Your task to perform on an android device: change keyboard looks Image 0: 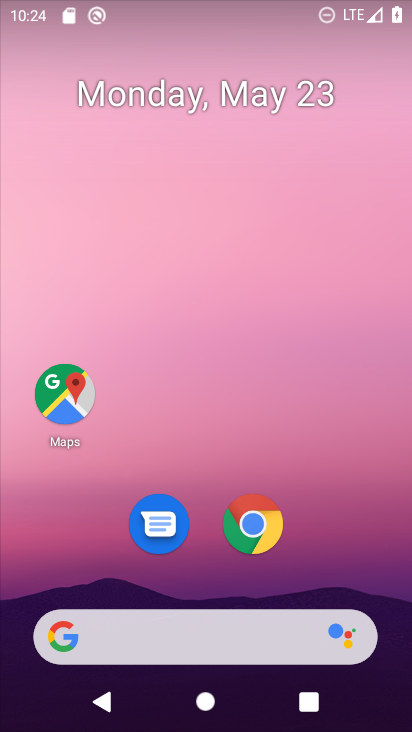
Step 0: drag from (180, 418) to (219, 32)
Your task to perform on an android device: change keyboard looks Image 1: 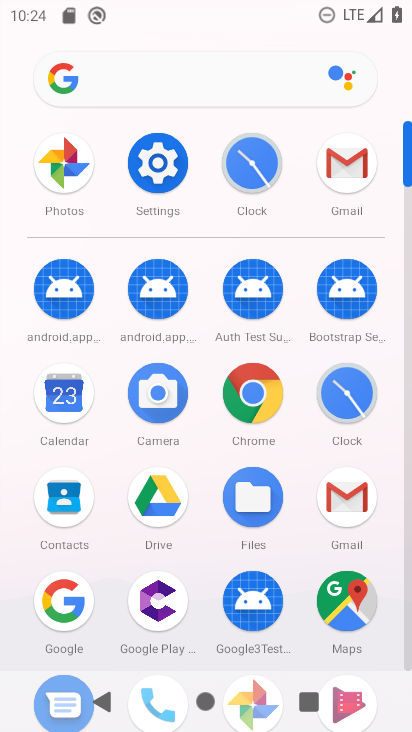
Step 1: click (165, 165)
Your task to perform on an android device: change keyboard looks Image 2: 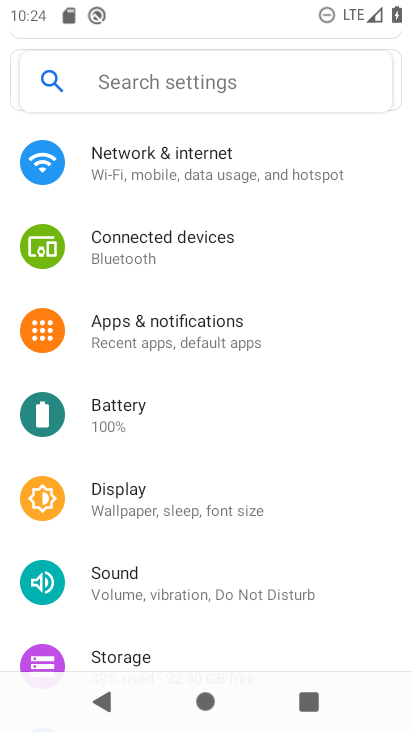
Step 2: drag from (209, 607) to (254, 89)
Your task to perform on an android device: change keyboard looks Image 3: 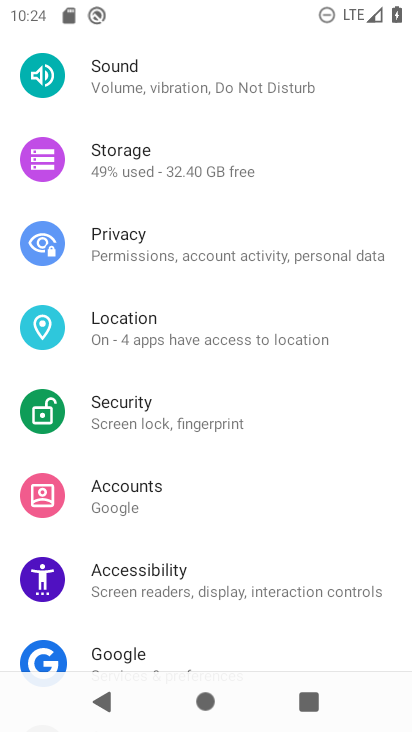
Step 3: drag from (212, 504) to (254, 120)
Your task to perform on an android device: change keyboard looks Image 4: 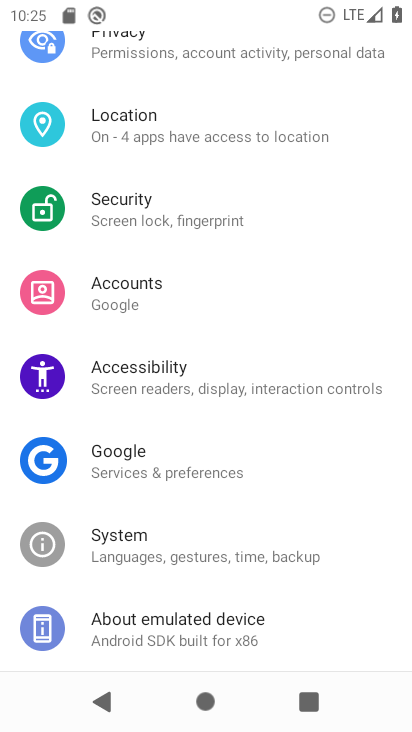
Step 4: click (176, 536)
Your task to perform on an android device: change keyboard looks Image 5: 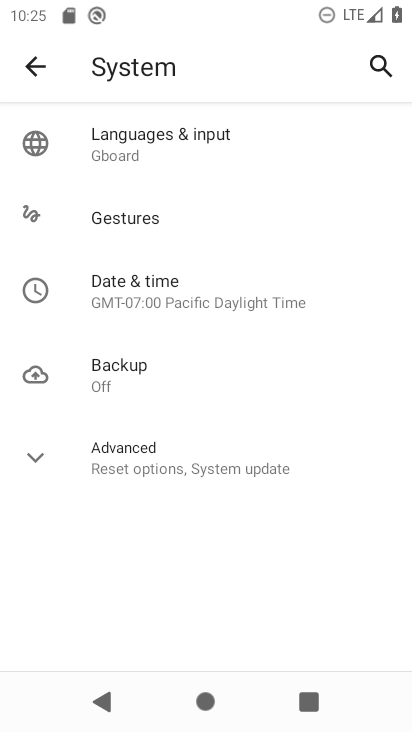
Step 5: click (181, 150)
Your task to perform on an android device: change keyboard looks Image 6: 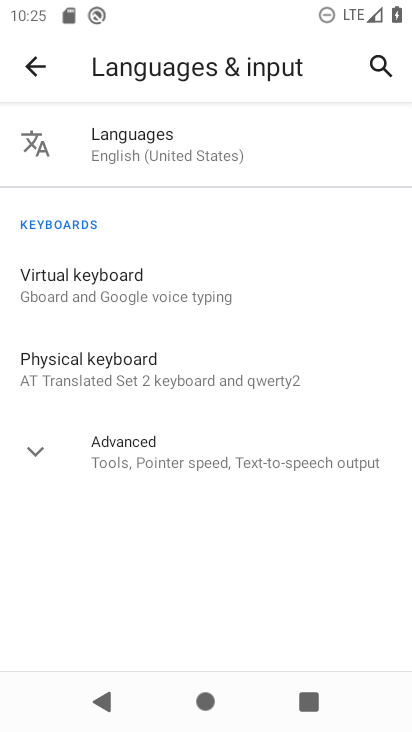
Step 6: click (161, 279)
Your task to perform on an android device: change keyboard looks Image 7: 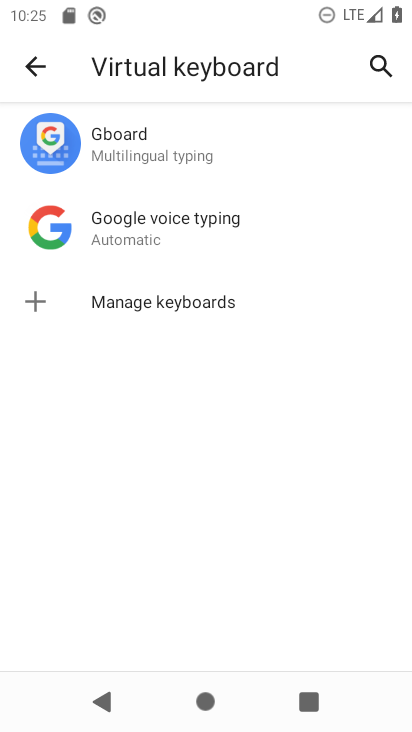
Step 7: click (163, 156)
Your task to perform on an android device: change keyboard looks Image 8: 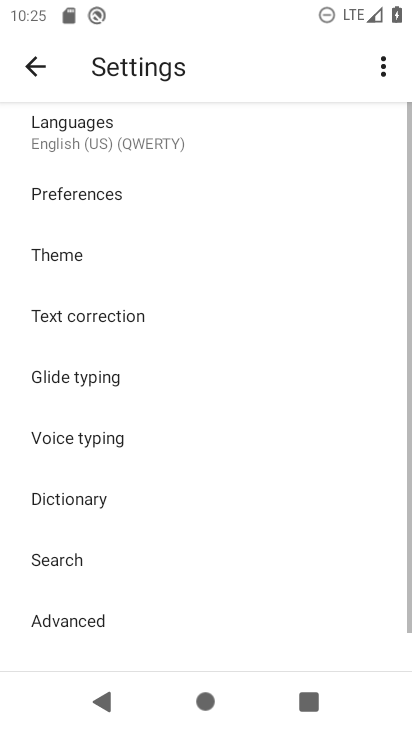
Step 8: click (122, 258)
Your task to perform on an android device: change keyboard looks Image 9: 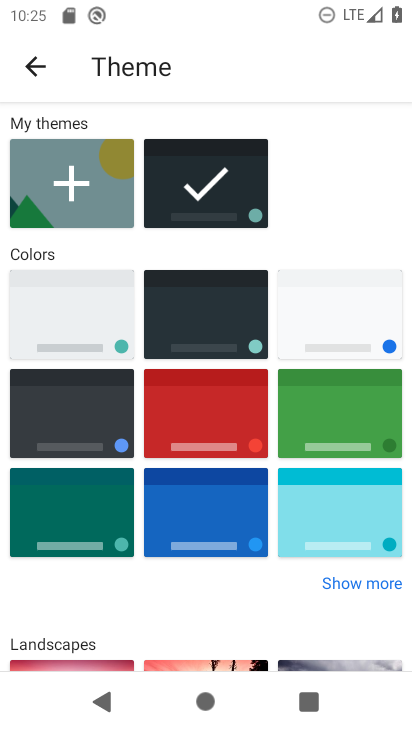
Step 9: click (102, 303)
Your task to perform on an android device: change keyboard looks Image 10: 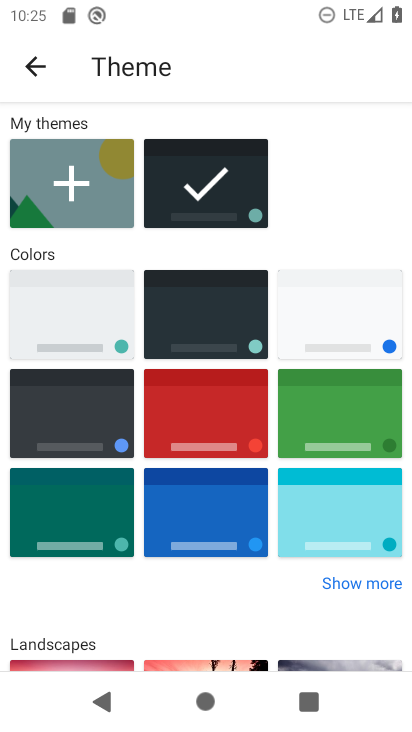
Step 10: click (102, 311)
Your task to perform on an android device: change keyboard looks Image 11: 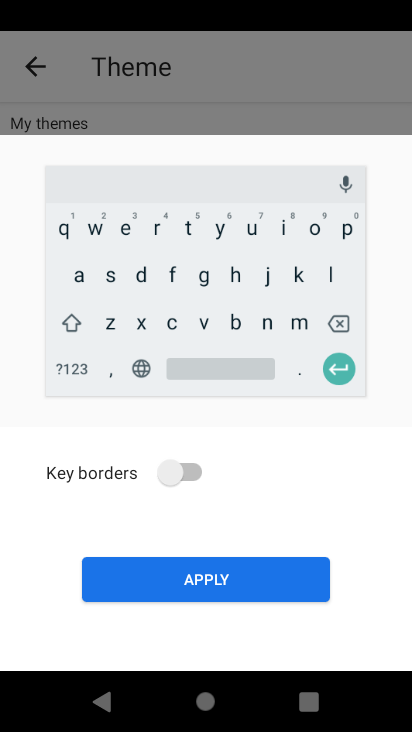
Step 11: click (191, 467)
Your task to perform on an android device: change keyboard looks Image 12: 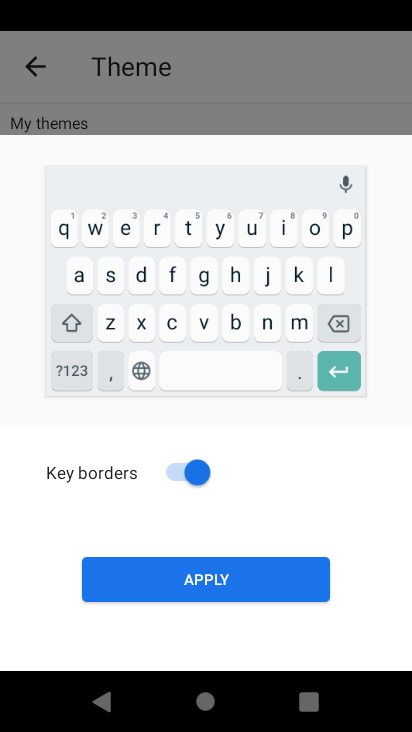
Step 12: click (216, 562)
Your task to perform on an android device: change keyboard looks Image 13: 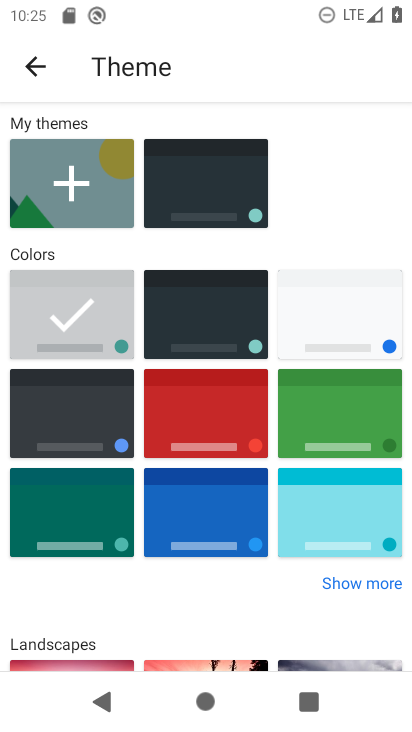
Step 13: task complete